Your task to perform on an android device: open app "Spotify: Music and Podcasts" Image 0: 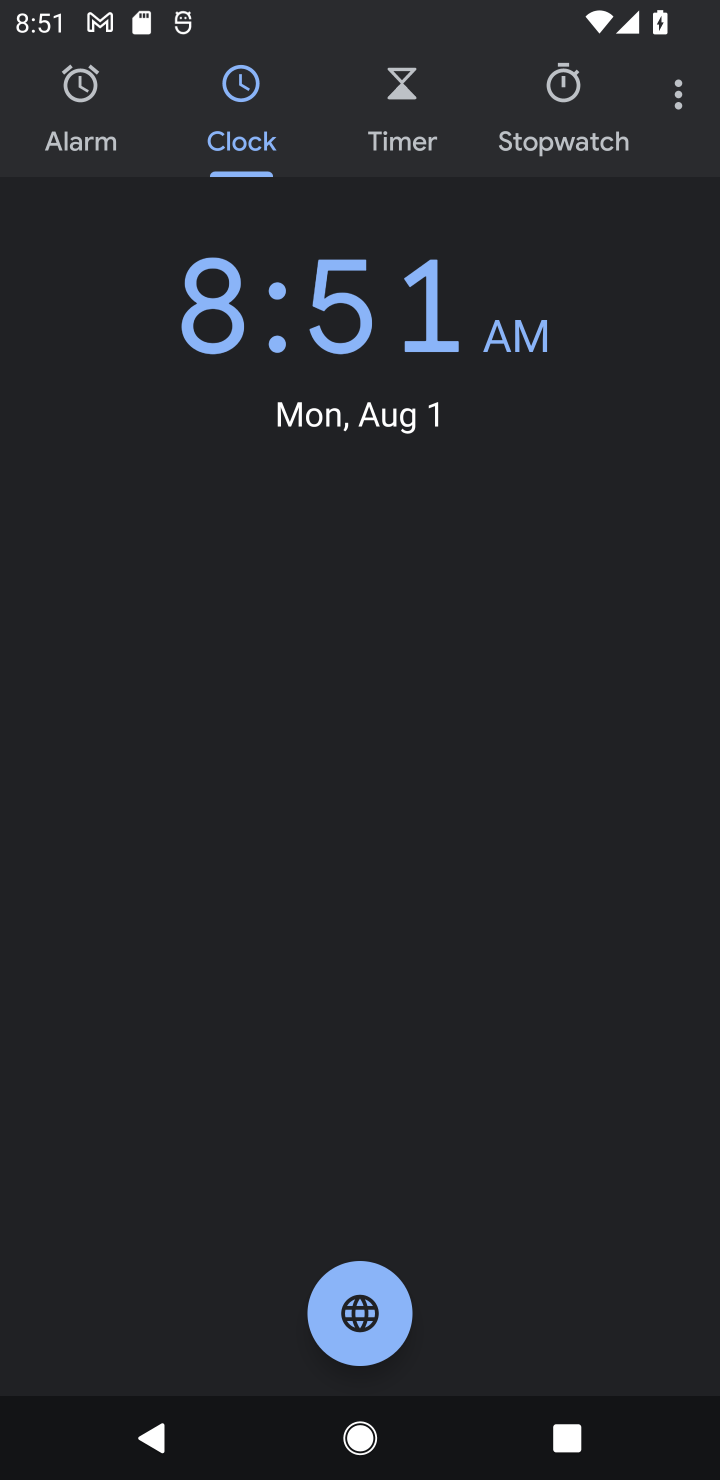
Step 0: press back button
Your task to perform on an android device: open app "Spotify: Music and Podcasts" Image 1: 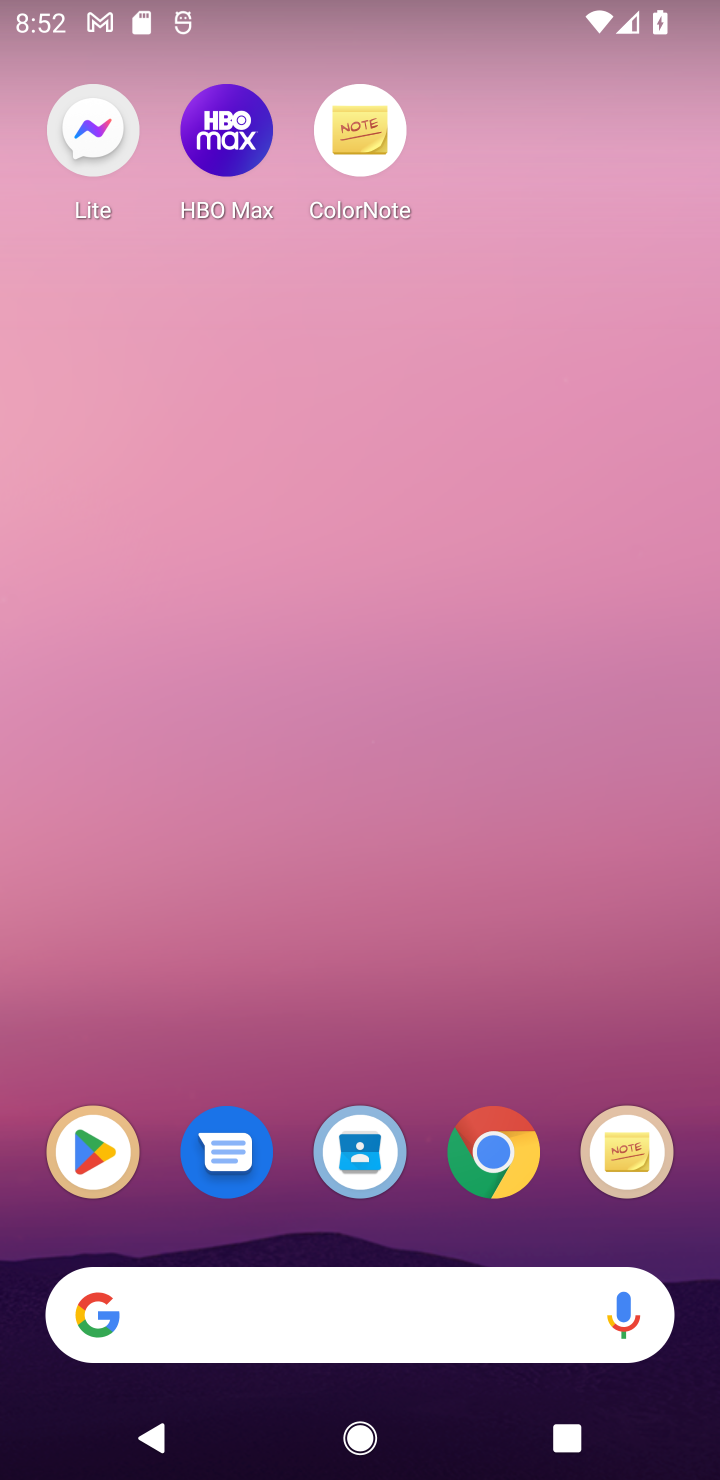
Step 1: drag from (359, 1218) to (286, 50)
Your task to perform on an android device: open app "Spotify: Music and Podcasts" Image 2: 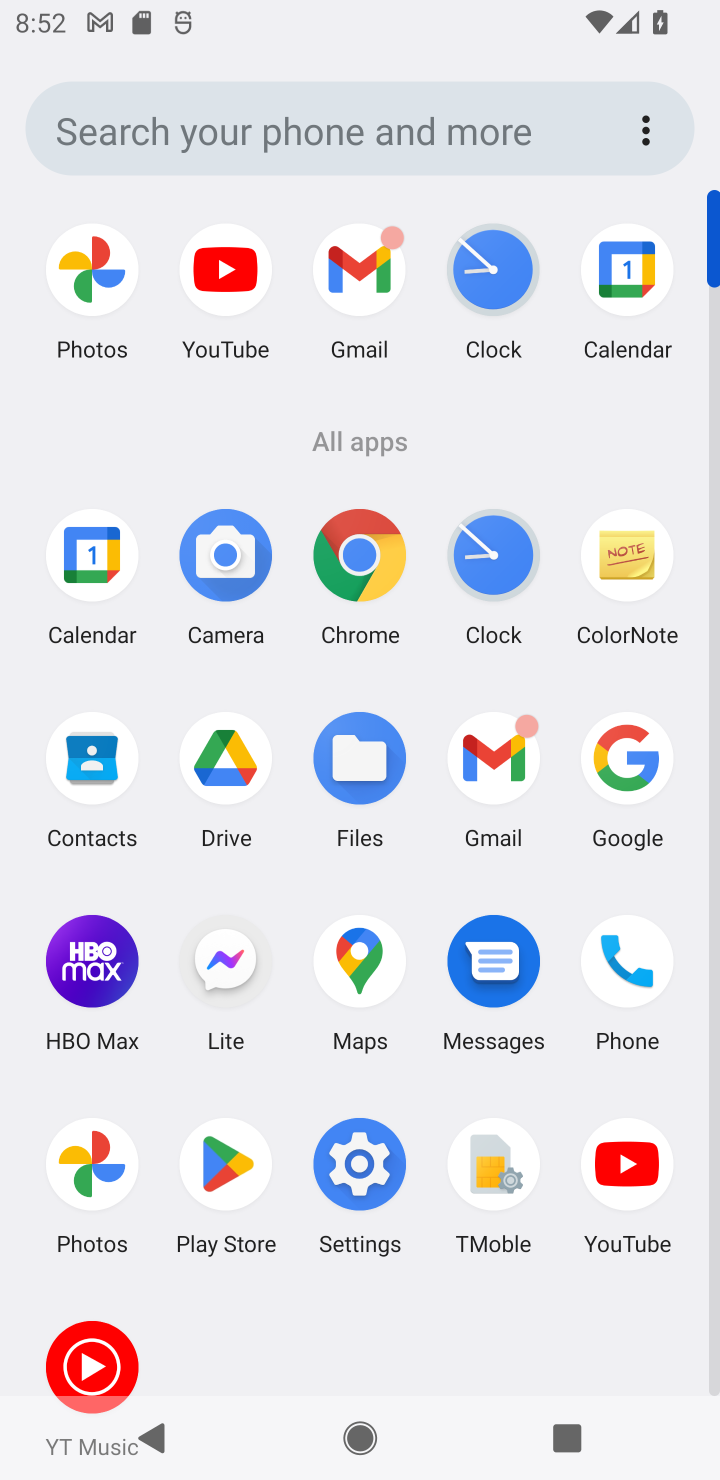
Step 2: click (203, 1149)
Your task to perform on an android device: open app "Spotify: Music and Podcasts" Image 3: 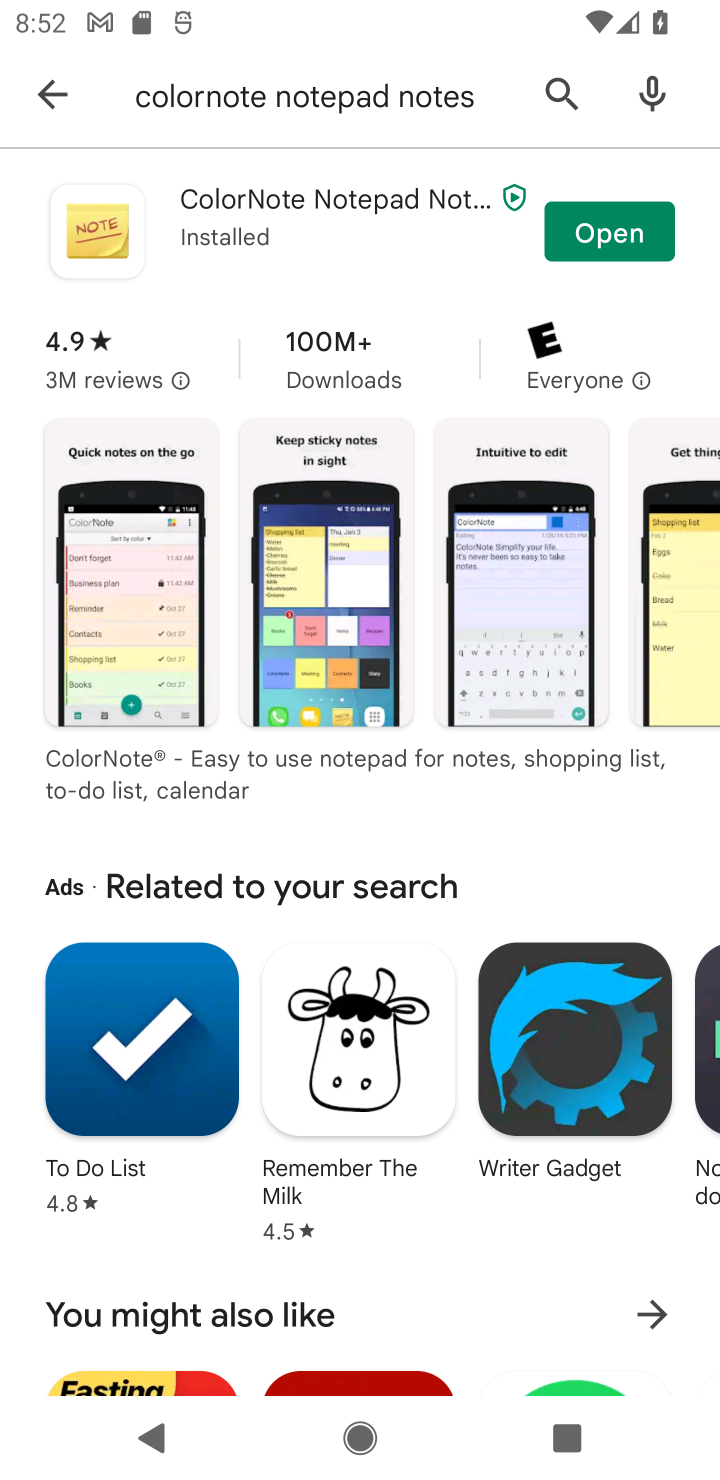
Step 3: click (60, 92)
Your task to perform on an android device: open app "Spotify: Music and Podcasts" Image 4: 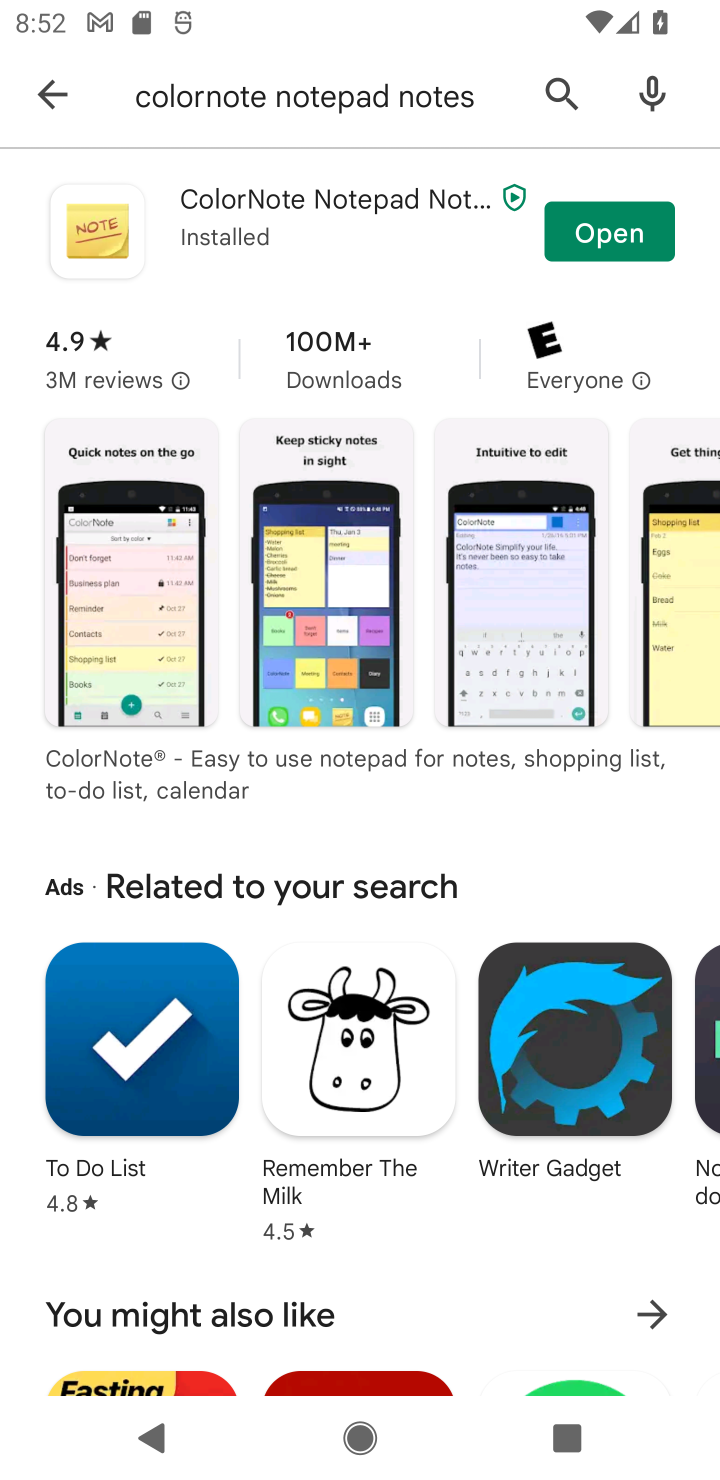
Step 4: click (58, 92)
Your task to perform on an android device: open app "Spotify: Music and Podcasts" Image 5: 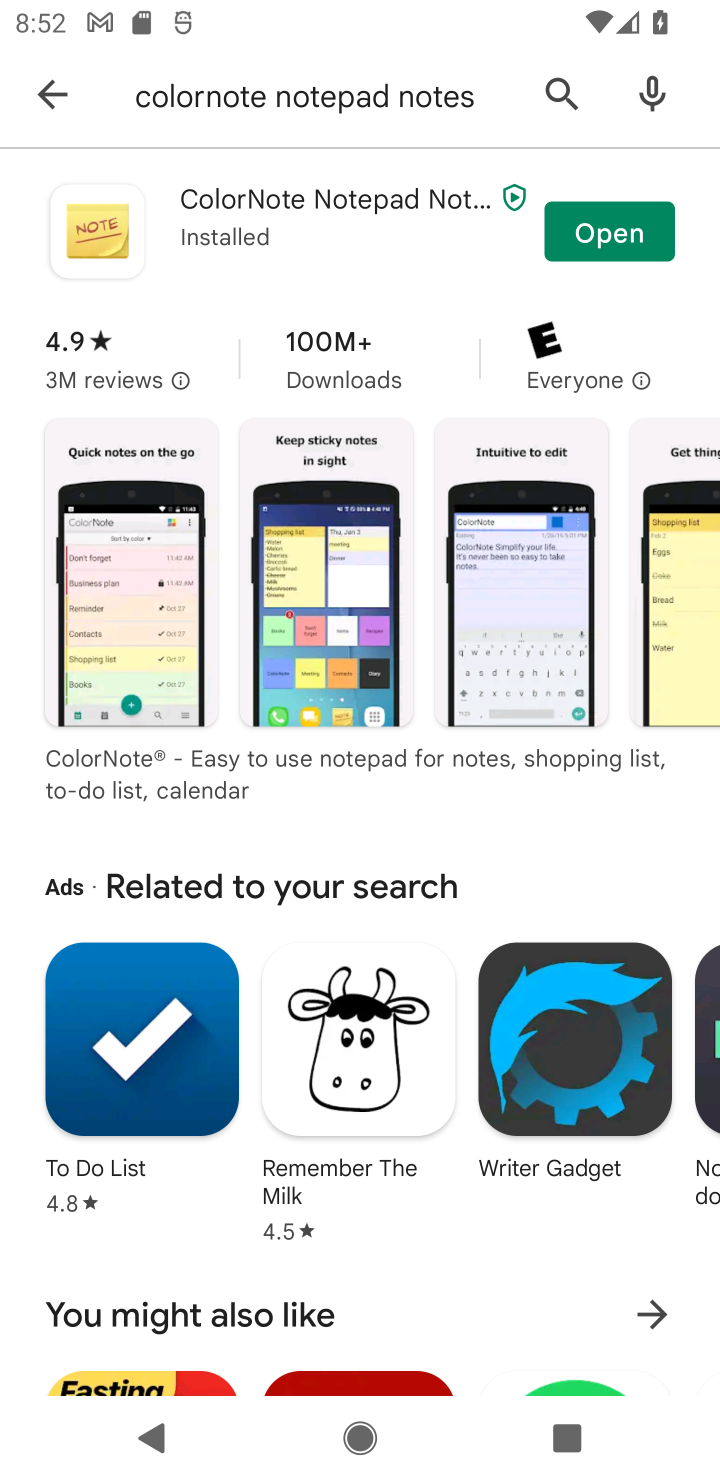
Step 5: click (39, 99)
Your task to perform on an android device: open app "Spotify: Music and Podcasts" Image 6: 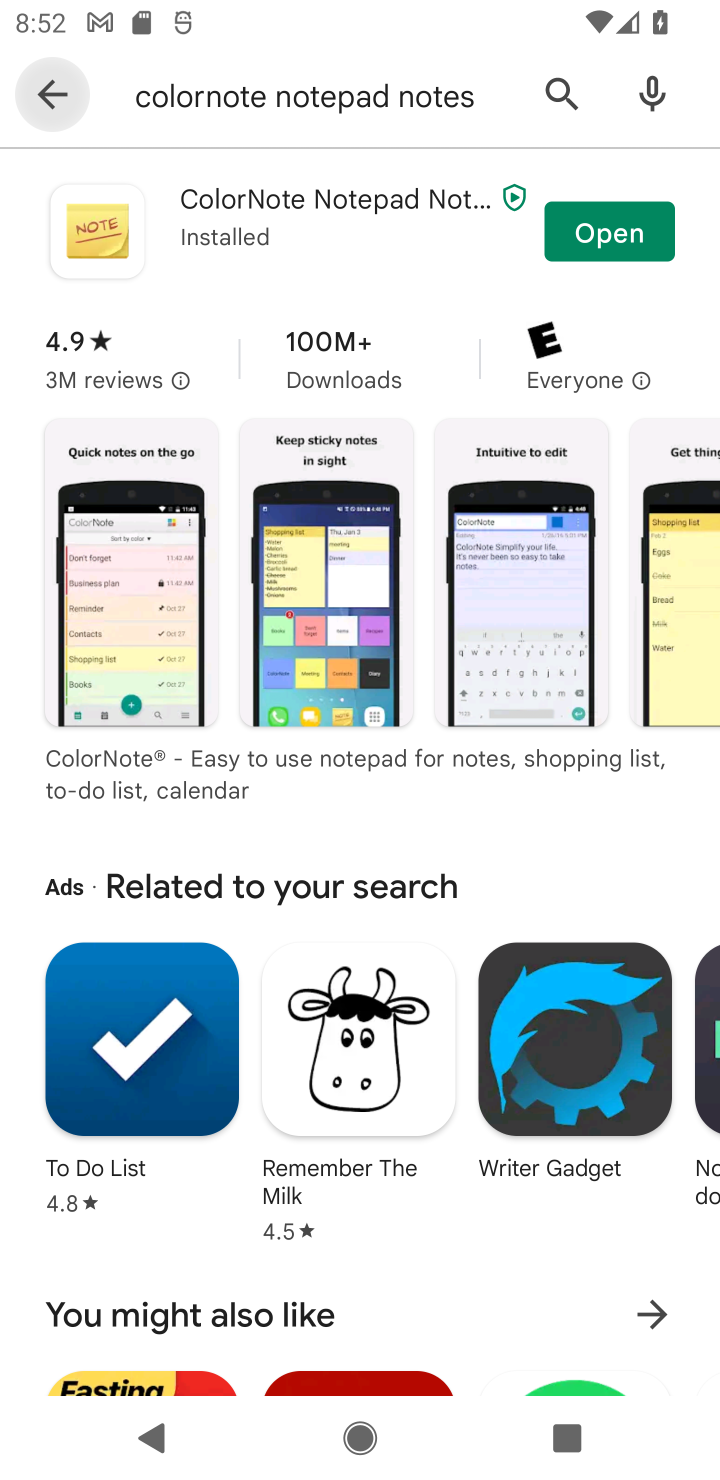
Step 6: click (44, 99)
Your task to perform on an android device: open app "Spotify: Music and Podcasts" Image 7: 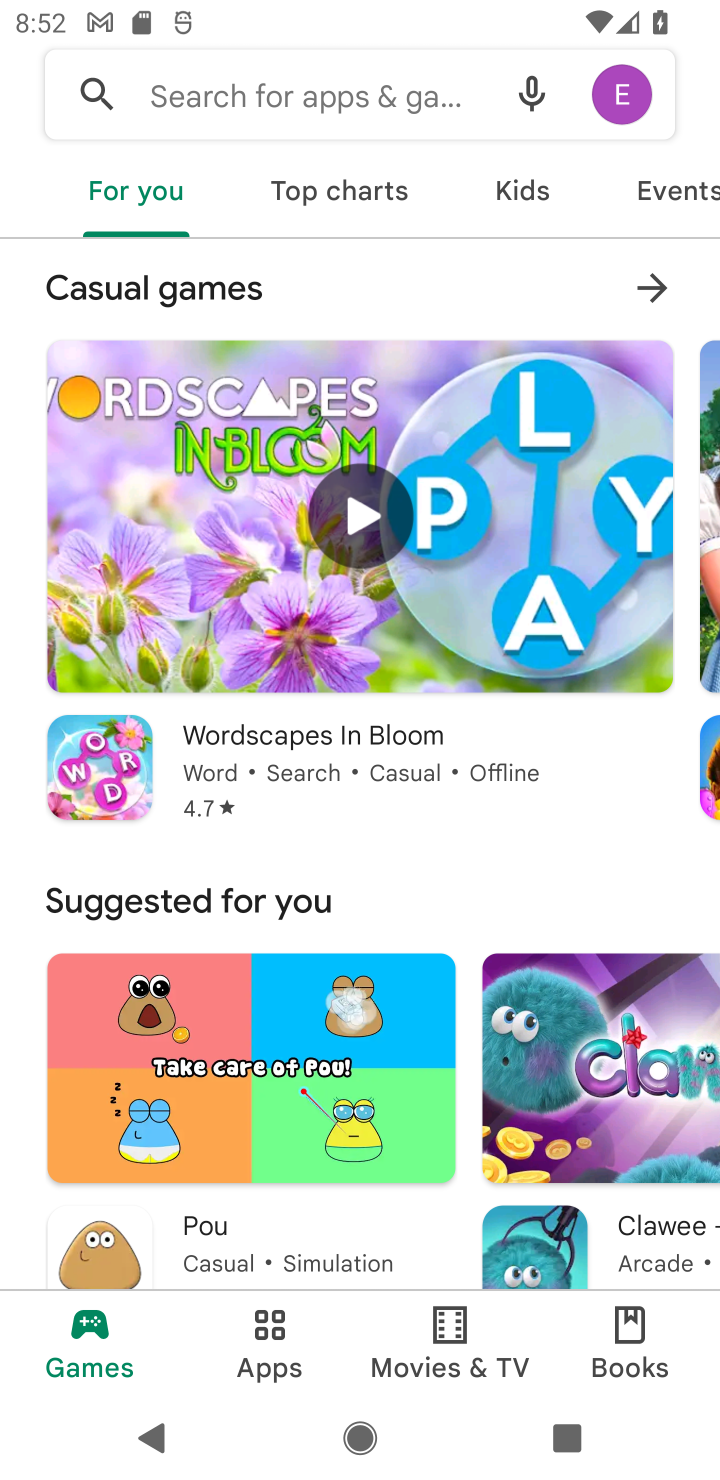
Step 7: click (92, 94)
Your task to perform on an android device: open app "Spotify: Music and Podcasts" Image 8: 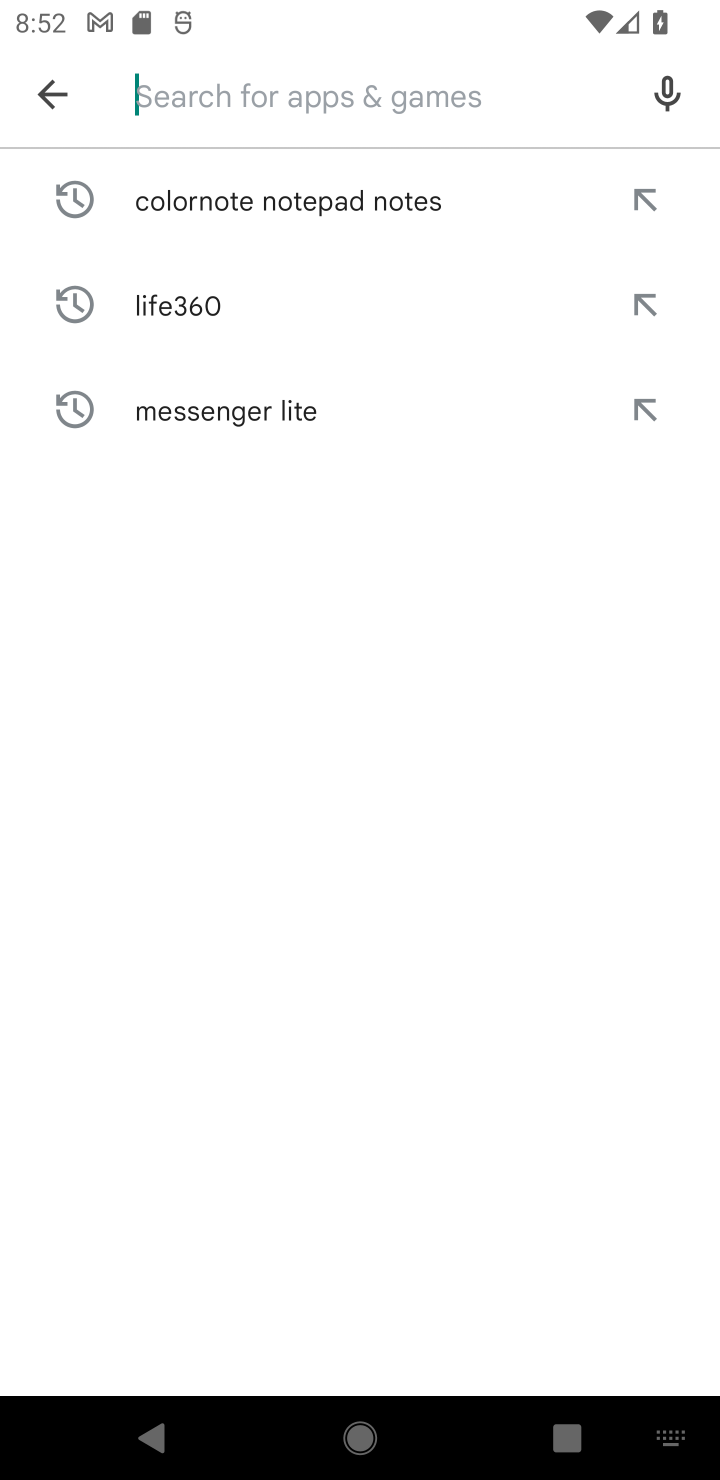
Step 8: type "Spotify"
Your task to perform on an android device: open app "Spotify: Music and Podcasts" Image 9: 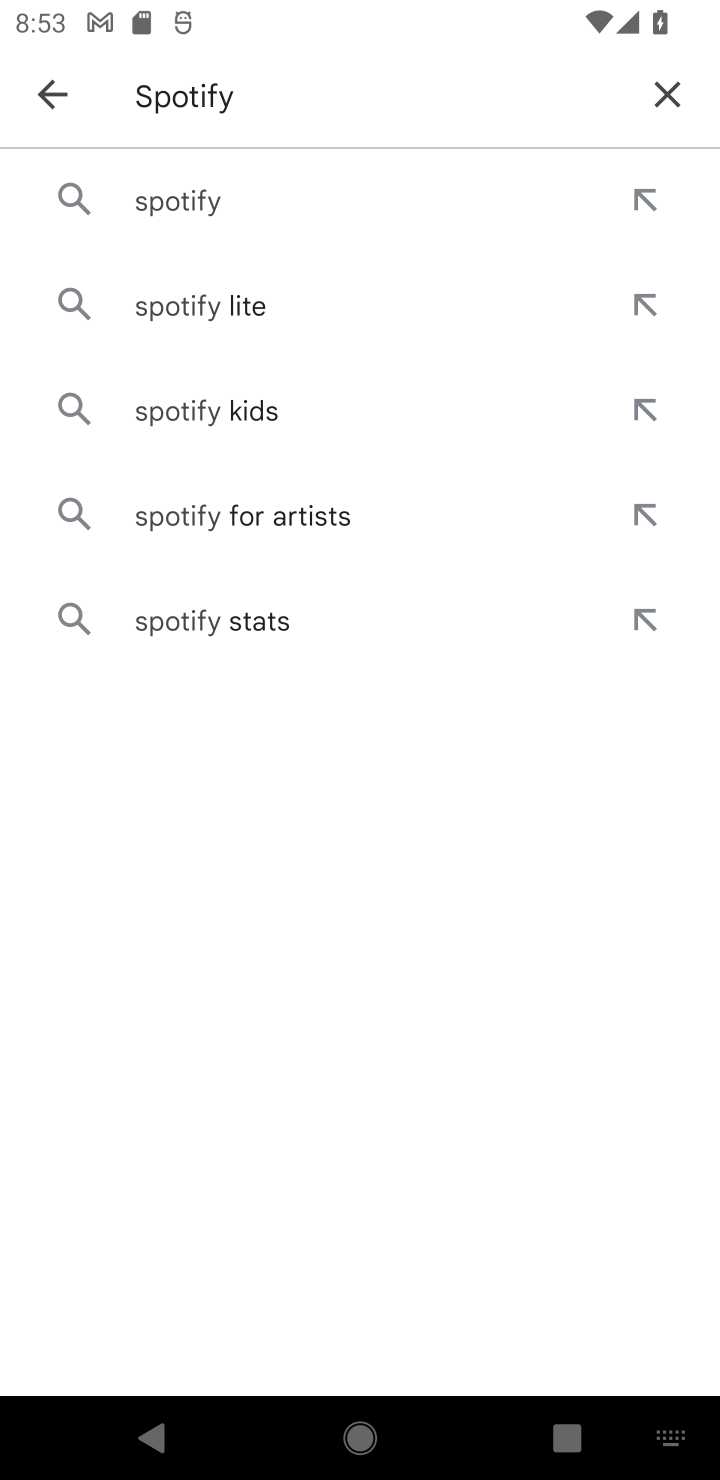
Step 9: click (160, 200)
Your task to perform on an android device: open app "Spotify: Music and Podcasts" Image 10: 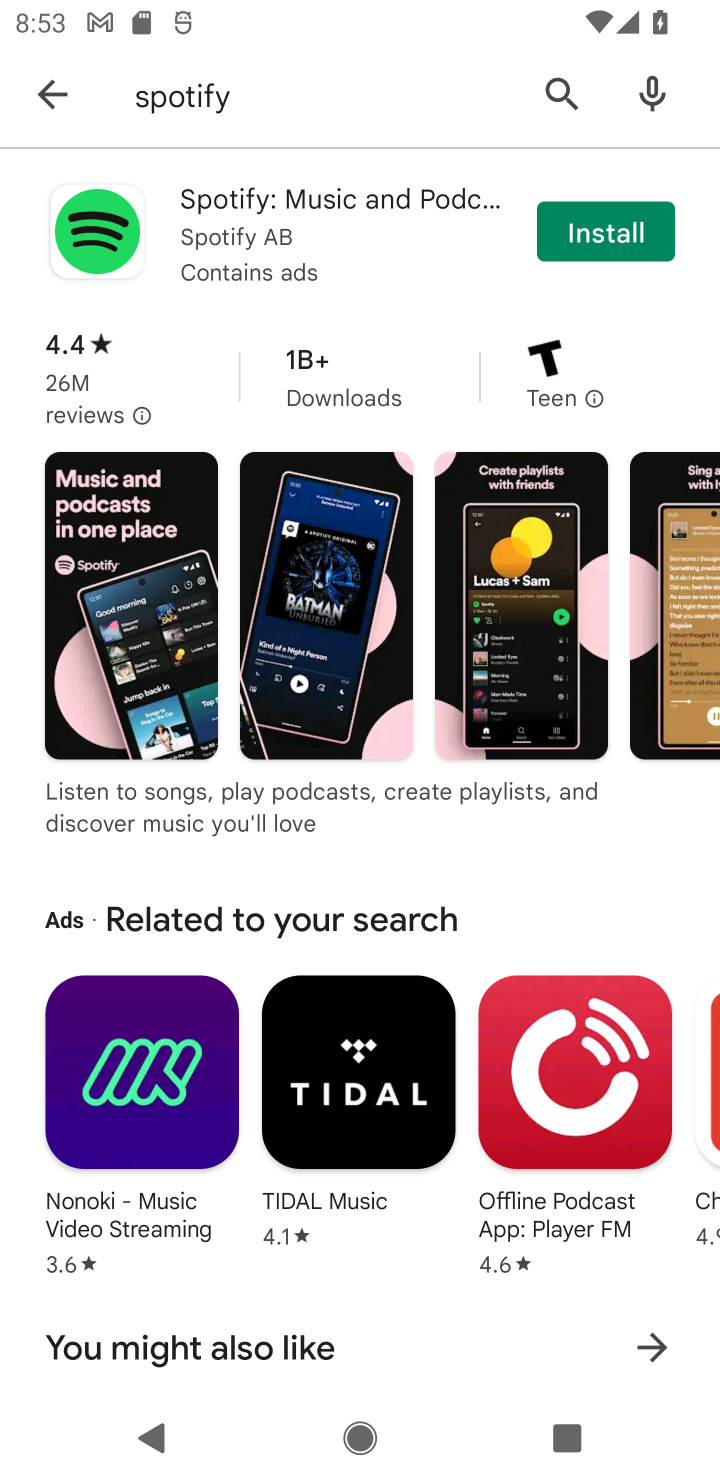
Step 10: task complete